Your task to perform on an android device: Do I have any events today? Image 0: 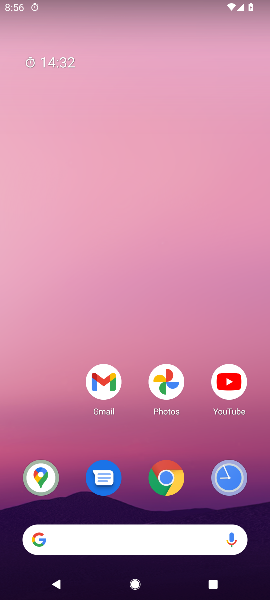
Step 0: press home button
Your task to perform on an android device: Do I have any events today? Image 1: 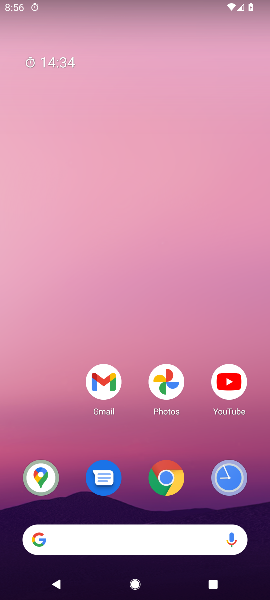
Step 1: drag from (172, 516) to (188, 9)
Your task to perform on an android device: Do I have any events today? Image 2: 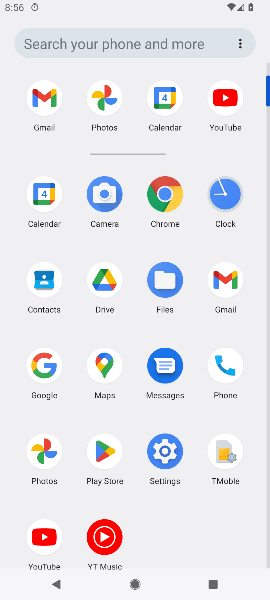
Step 2: click (42, 203)
Your task to perform on an android device: Do I have any events today? Image 3: 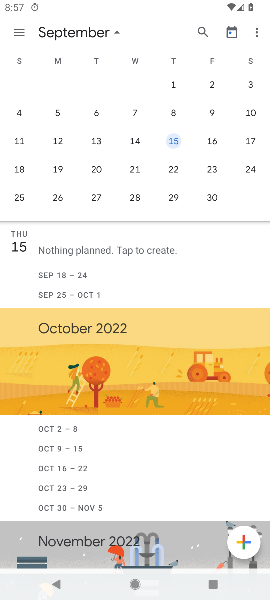
Step 3: drag from (41, 145) to (247, 124)
Your task to perform on an android device: Do I have any events today? Image 4: 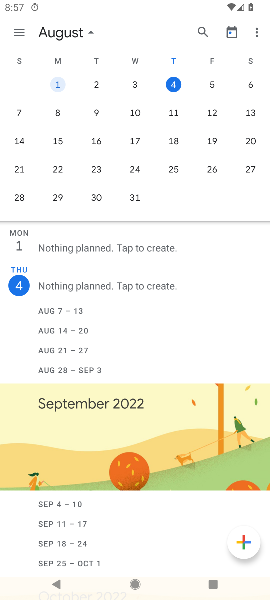
Step 4: click (203, 79)
Your task to perform on an android device: Do I have any events today? Image 5: 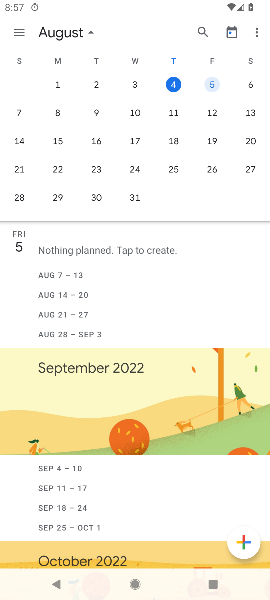
Step 5: task complete